Your task to perform on an android device: find which apps use the phone's location Image 0: 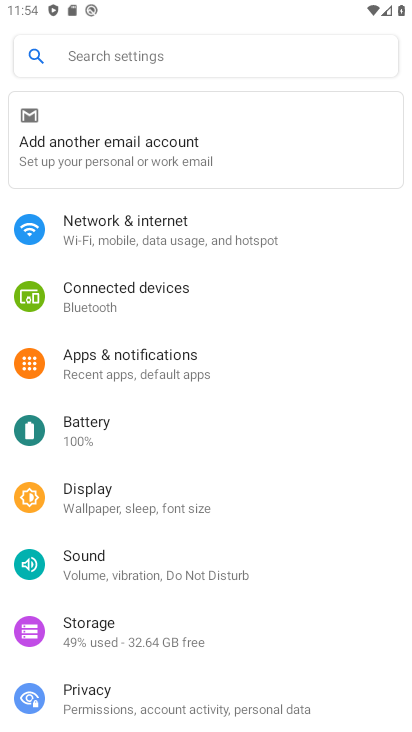
Step 0: drag from (130, 596) to (128, 279)
Your task to perform on an android device: find which apps use the phone's location Image 1: 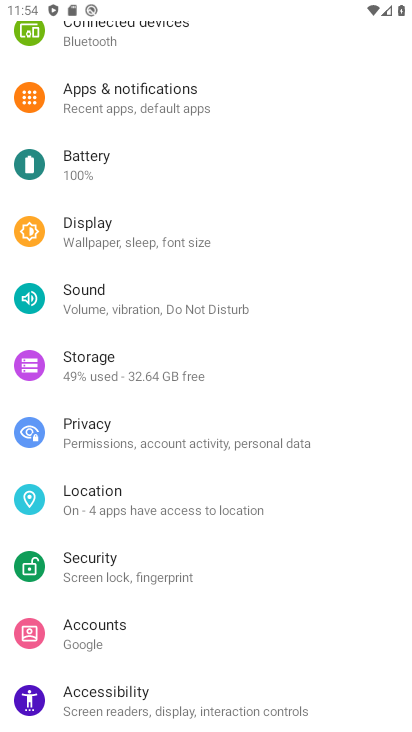
Step 1: click (121, 502)
Your task to perform on an android device: find which apps use the phone's location Image 2: 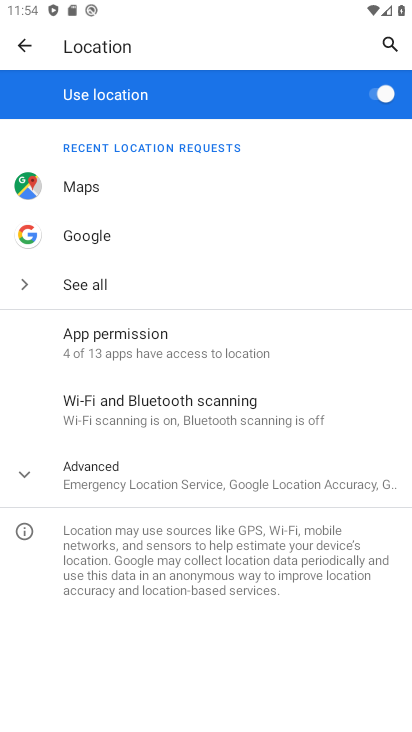
Step 2: click (161, 344)
Your task to perform on an android device: find which apps use the phone's location Image 3: 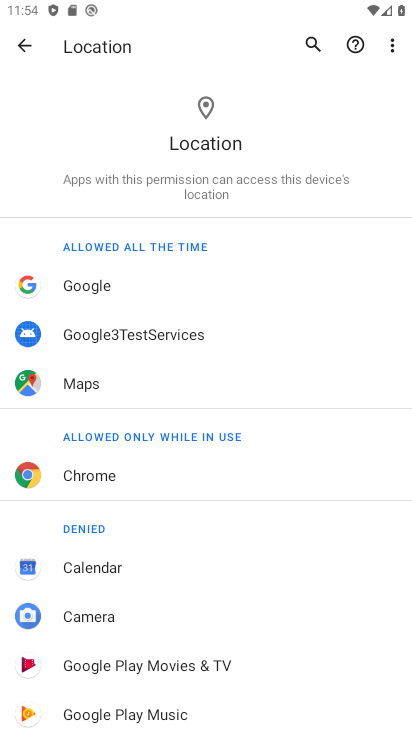
Step 3: task complete